Your task to perform on an android device: turn off picture-in-picture Image 0: 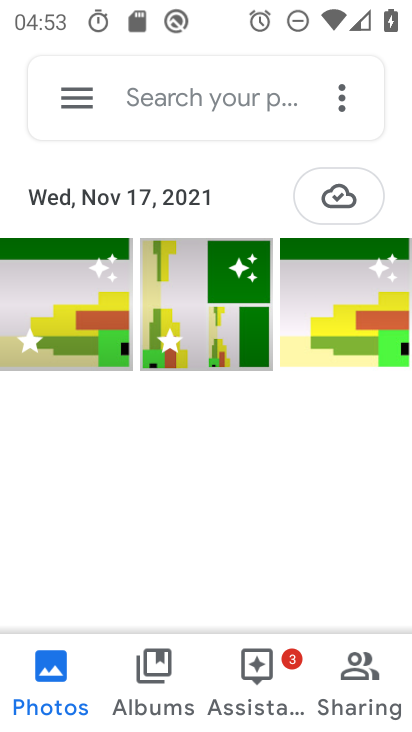
Step 0: press back button
Your task to perform on an android device: turn off picture-in-picture Image 1: 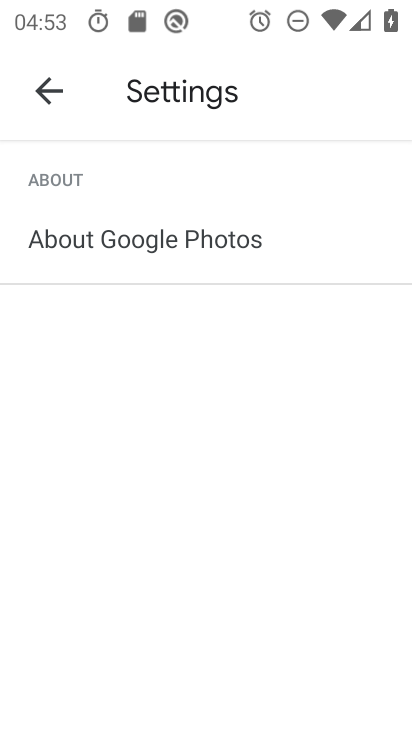
Step 1: press back button
Your task to perform on an android device: turn off picture-in-picture Image 2: 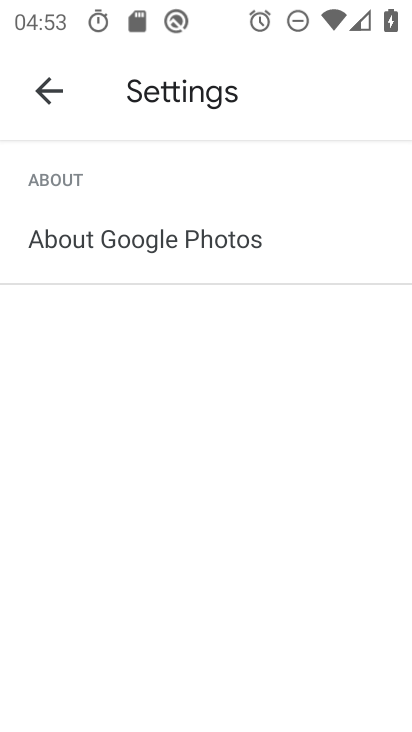
Step 2: press home button
Your task to perform on an android device: turn off picture-in-picture Image 3: 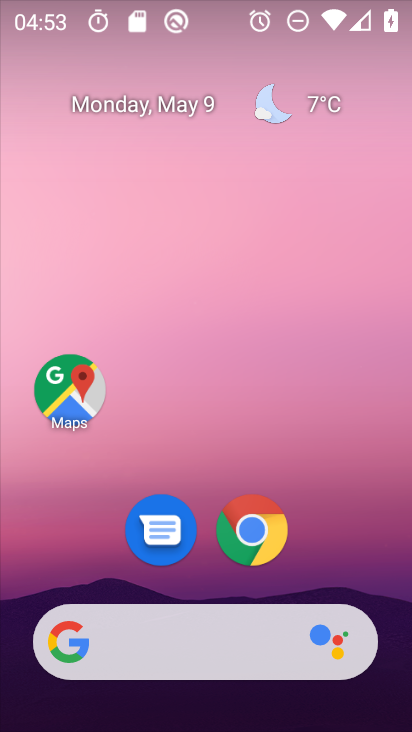
Step 3: drag from (218, 463) to (286, 59)
Your task to perform on an android device: turn off picture-in-picture Image 4: 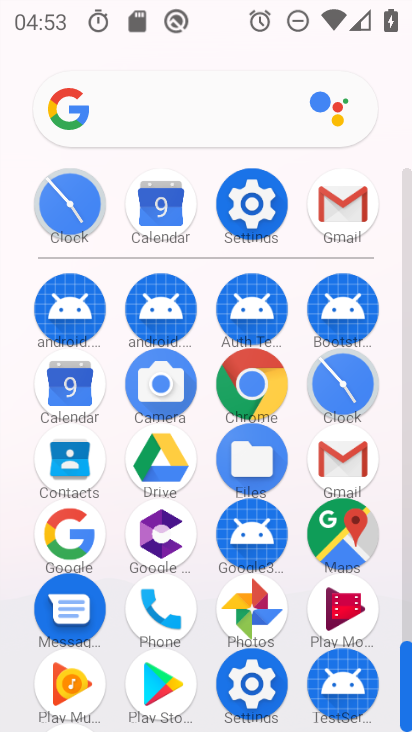
Step 4: click (254, 186)
Your task to perform on an android device: turn off picture-in-picture Image 5: 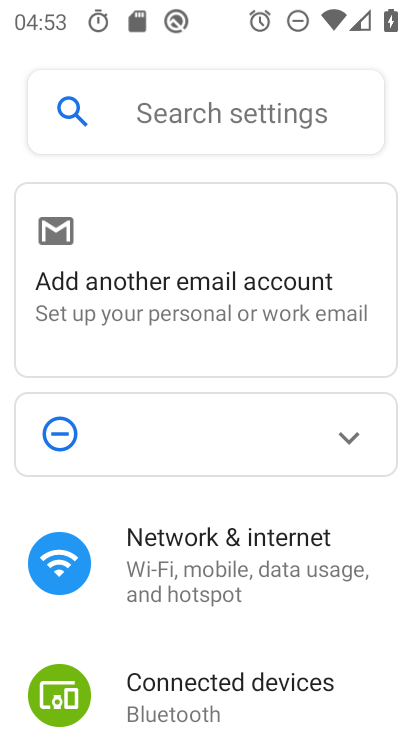
Step 5: drag from (201, 668) to (264, 217)
Your task to perform on an android device: turn off picture-in-picture Image 6: 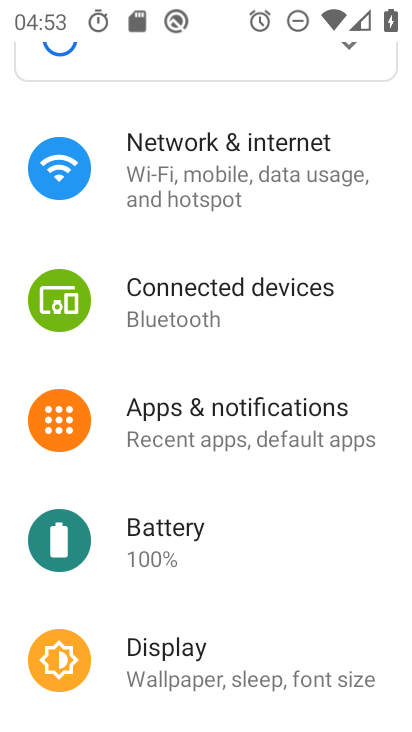
Step 6: click (208, 416)
Your task to perform on an android device: turn off picture-in-picture Image 7: 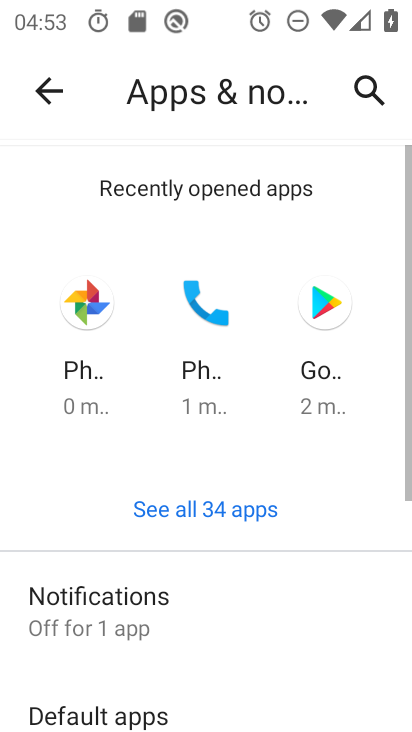
Step 7: drag from (176, 667) to (288, 219)
Your task to perform on an android device: turn off picture-in-picture Image 8: 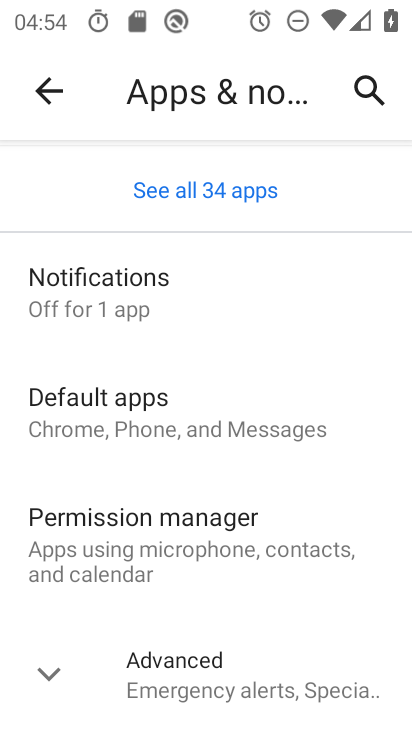
Step 8: click (204, 681)
Your task to perform on an android device: turn off picture-in-picture Image 9: 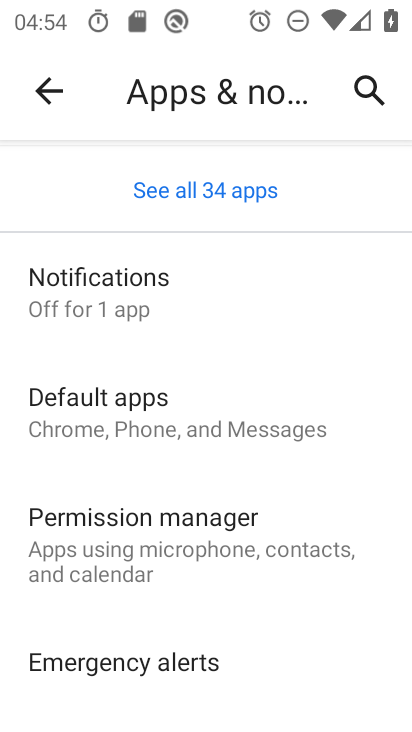
Step 9: drag from (185, 663) to (267, 179)
Your task to perform on an android device: turn off picture-in-picture Image 10: 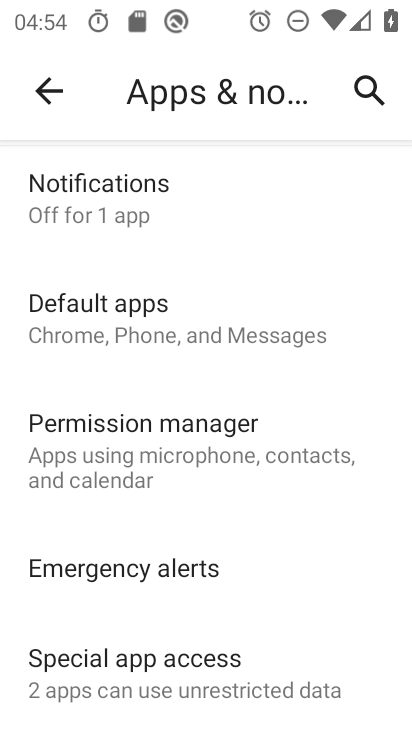
Step 10: click (105, 688)
Your task to perform on an android device: turn off picture-in-picture Image 11: 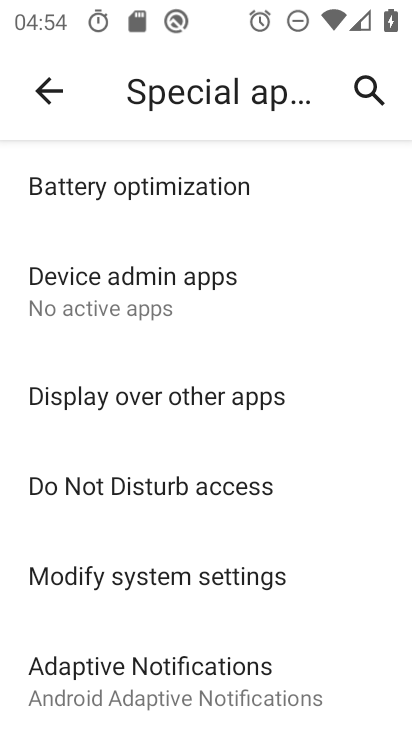
Step 11: drag from (113, 678) to (245, 147)
Your task to perform on an android device: turn off picture-in-picture Image 12: 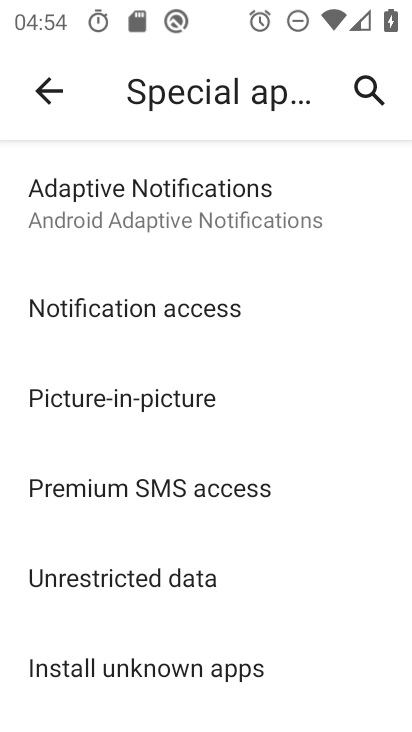
Step 12: click (84, 397)
Your task to perform on an android device: turn off picture-in-picture Image 13: 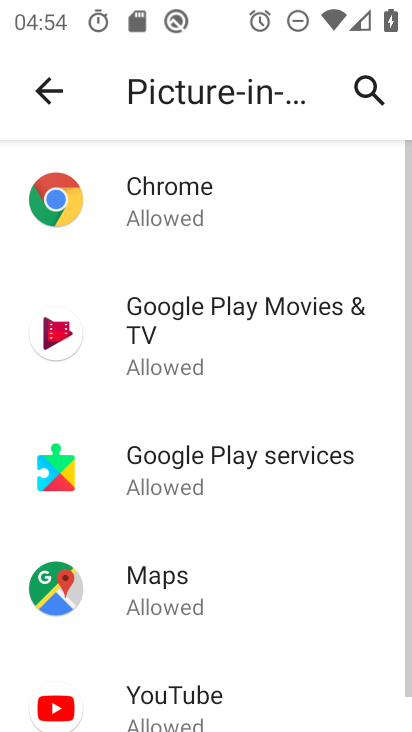
Step 13: click (173, 206)
Your task to perform on an android device: turn off picture-in-picture Image 14: 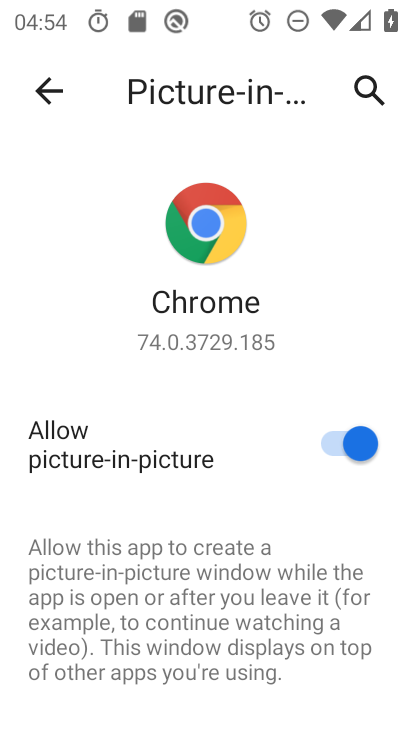
Step 14: click (337, 435)
Your task to perform on an android device: turn off picture-in-picture Image 15: 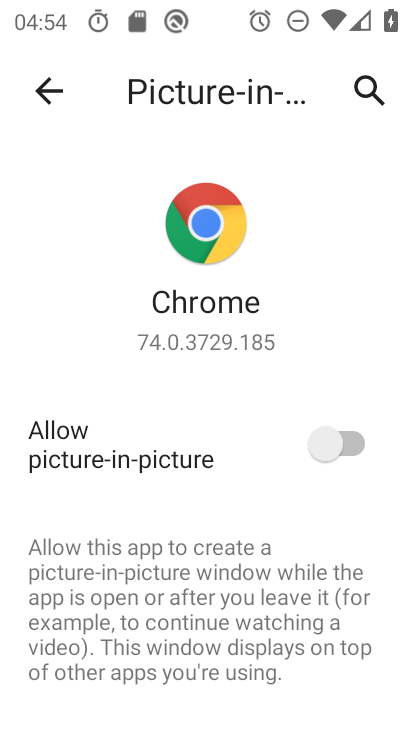
Step 15: task complete